Your task to perform on an android device: change timer sound Image 0: 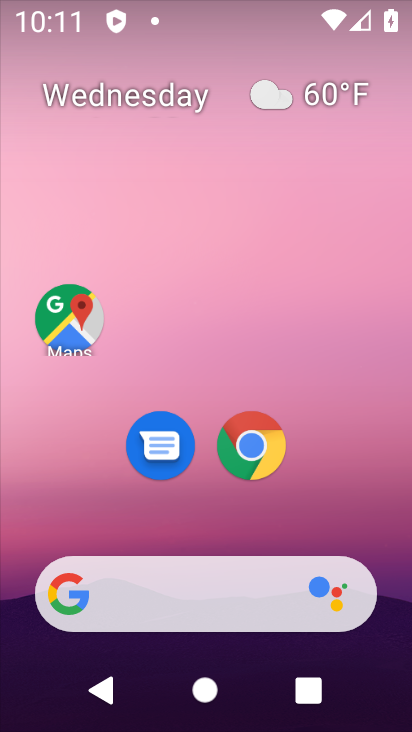
Step 0: drag from (199, 519) to (223, 136)
Your task to perform on an android device: change timer sound Image 1: 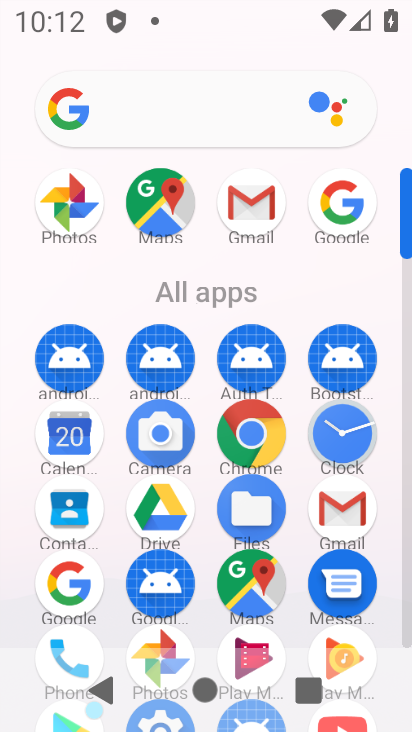
Step 1: click (358, 442)
Your task to perform on an android device: change timer sound Image 2: 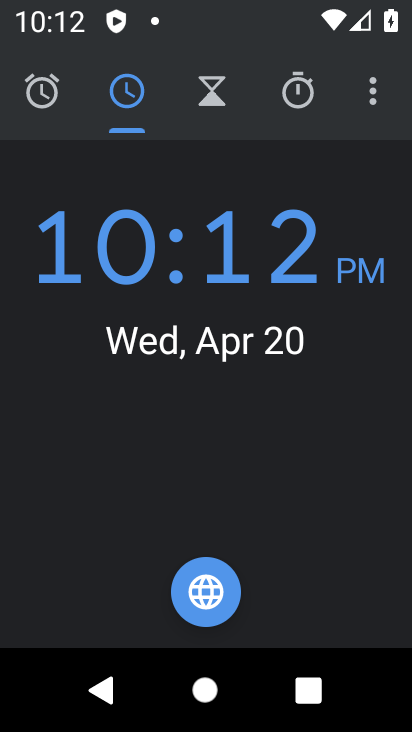
Step 2: click (368, 90)
Your task to perform on an android device: change timer sound Image 3: 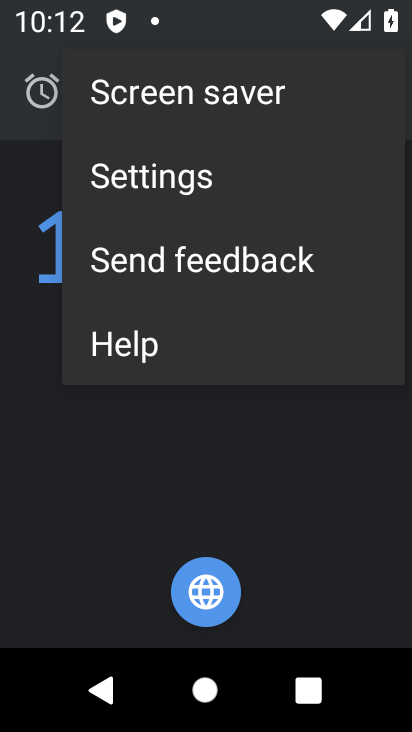
Step 3: click (208, 176)
Your task to perform on an android device: change timer sound Image 4: 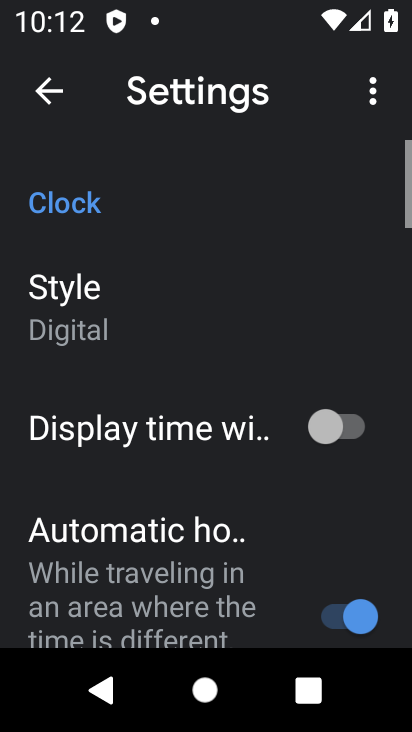
Step 4: drag from (173, 532) to (205, 180)
Your task to perform on an android device: change timer sound Image 5: 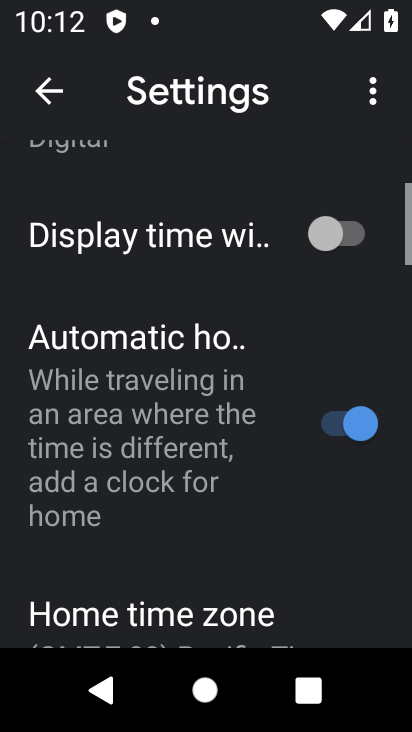
Step 5: drag from (213, 485) to (222, 222)
Your task to perform on an android device: change timer sound Image 6: 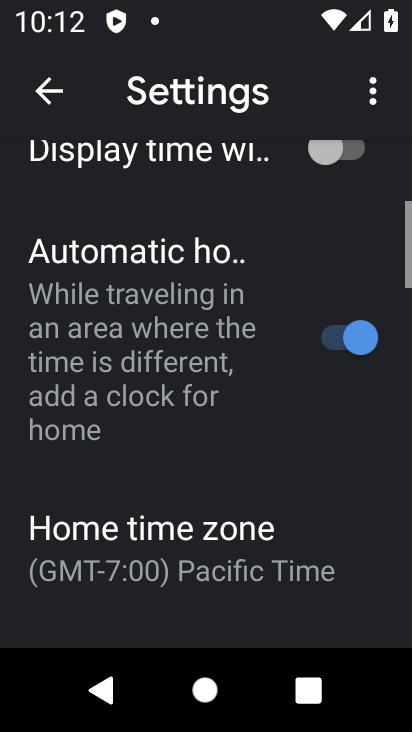
Step 6: drag from (222, 523) to (241, 244)
Your task to perform on an android device: change timer sound Image 7: 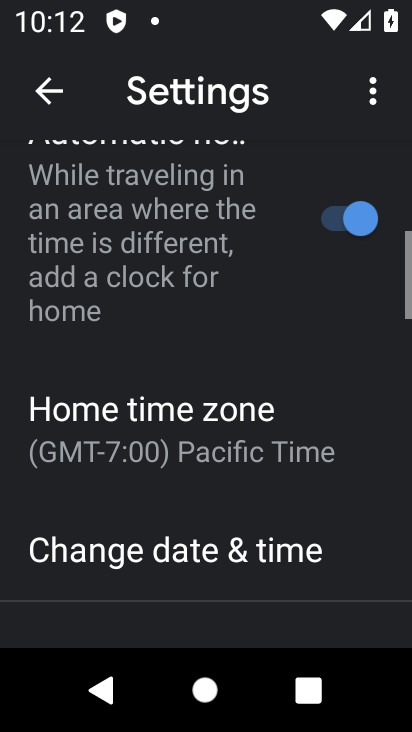
Step 7: drag from (249, 522) to (250, 223)
Your task to perform on an android device: change timer sound Image 8: 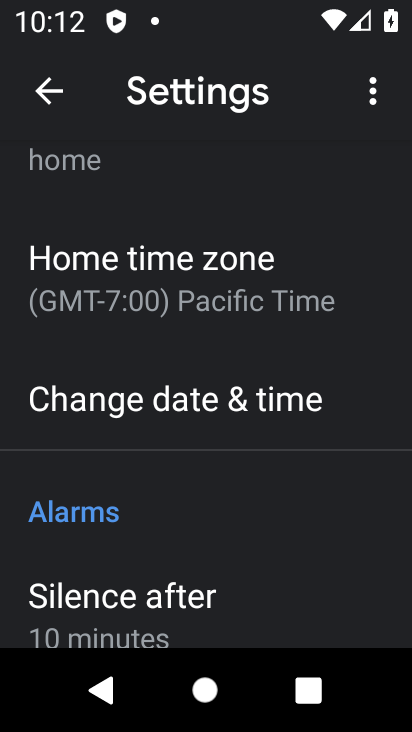
Step 8: drag from (252, 570) to (279, 297)
Your task to perform on an android device: change timer sound Image 9: 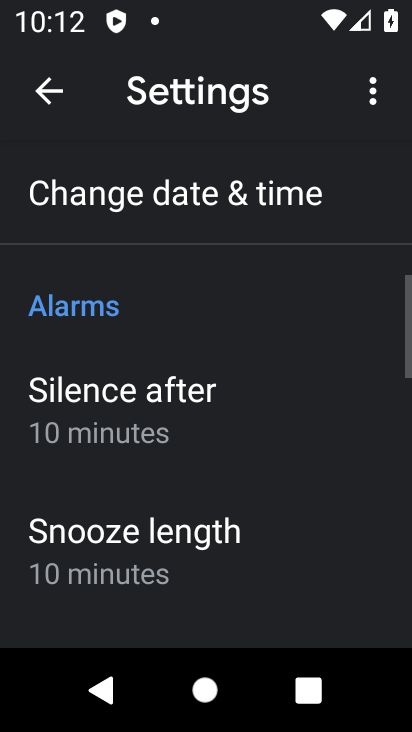
Step 9: drag from (283, 590) to (293, 331)
Your task to perform on an android device: change timer sound Image 10: 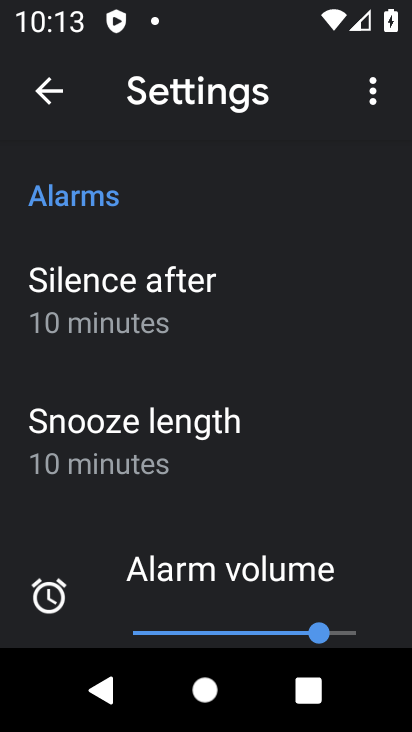
Step 10: drag from (264, 529) to (276, 218)
Your task to perform on an android device: change timer sound Image 11: 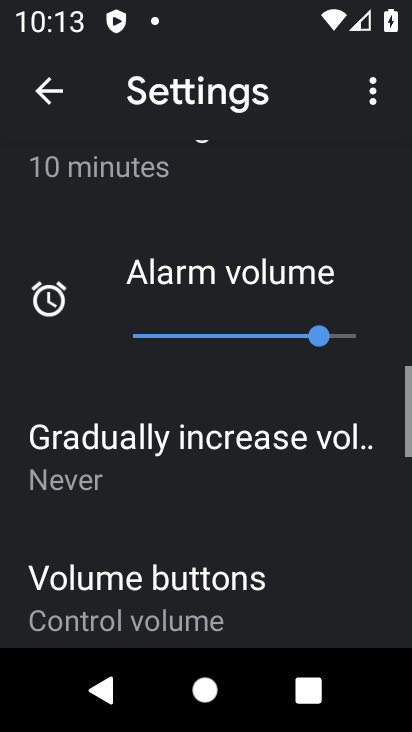
Step 11: drag from (263, 556) to (275, 234)
Your task to perform on an android device: change timer sound Image 12: 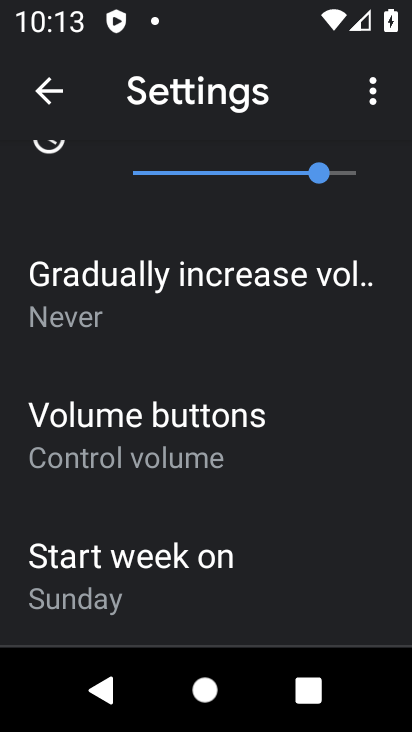
Step 12: drag from (324, 553) to (326, 248)
Your task to perform on an android device: change timer sound Image 13: 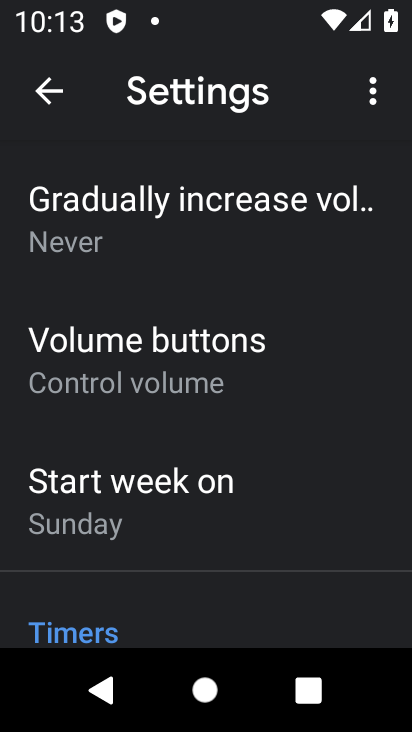
Step 13: drag from (295, 517) to (309, 269)
Your task to perform on an android device: change timer sound Image 14: 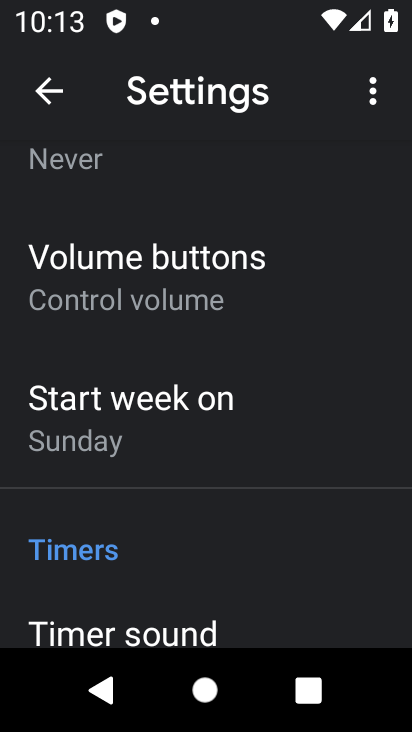
Step 14: drag from (293, 574) to (293, 350)
Your task to perform on an android device: change timer sound Image 15: 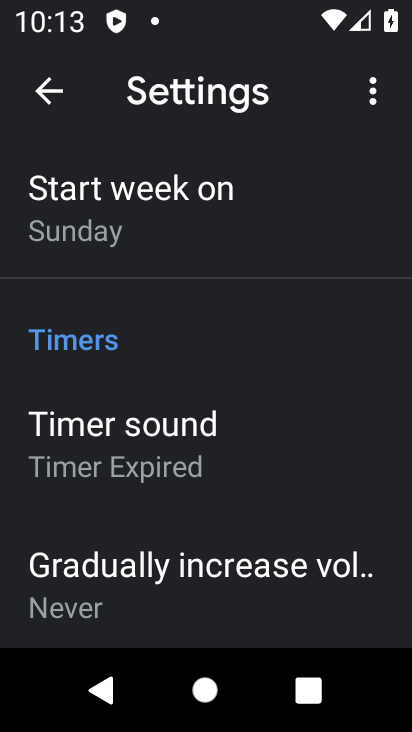
Step 15: click (212, 412)
Your task to perform on an android device: change timer sound Image 16: 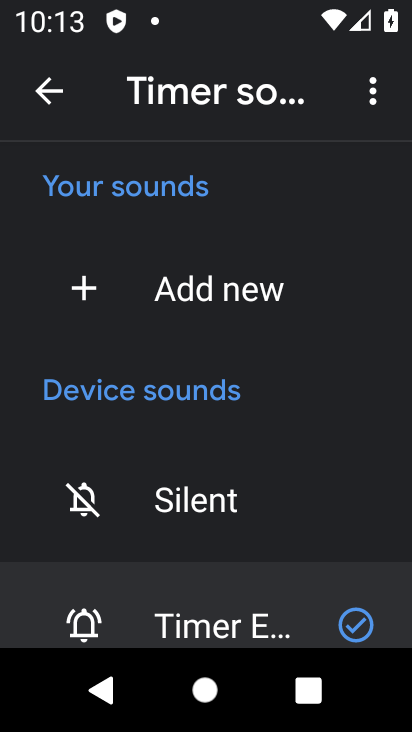
Step 16: drag from (294, 503) to (312, 275)
Your task to perform on an android device: change timer sound Image 17: 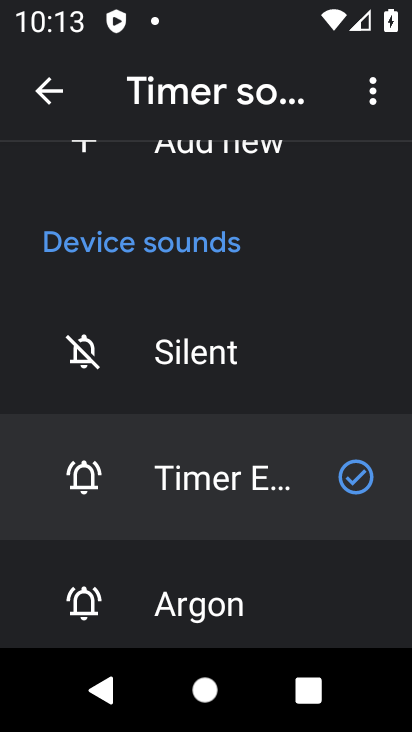
Step 17: click (234, 568)
Your task to perform on an android device: change timer sound Image 18: 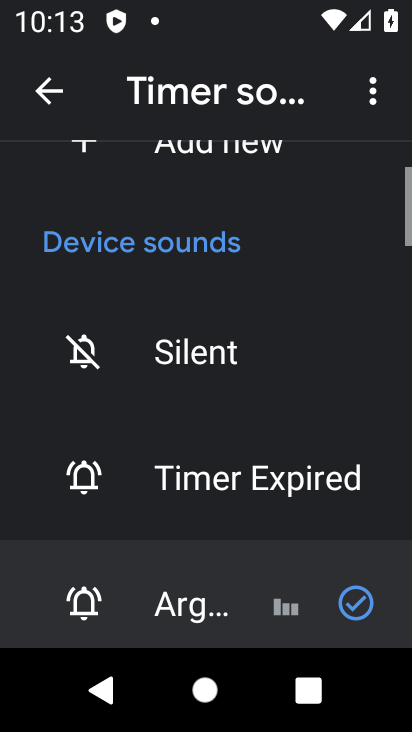
Step 18: task complete